Your task to perform on an android device: change alarm snooze length Image 0: 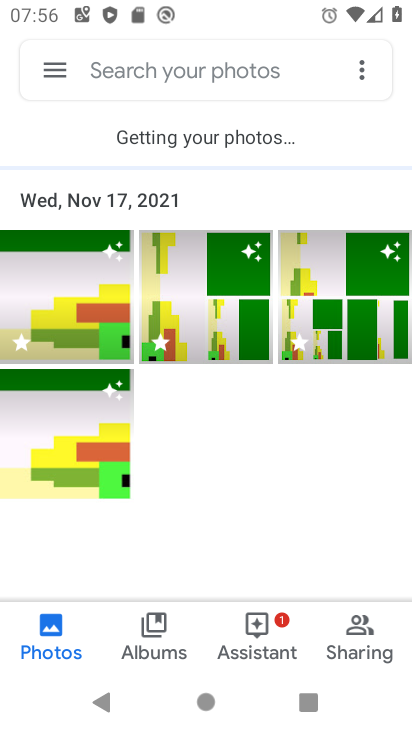
Step 0: press home button
Your task to perform on an android device: change alarm snooze length Image 1: 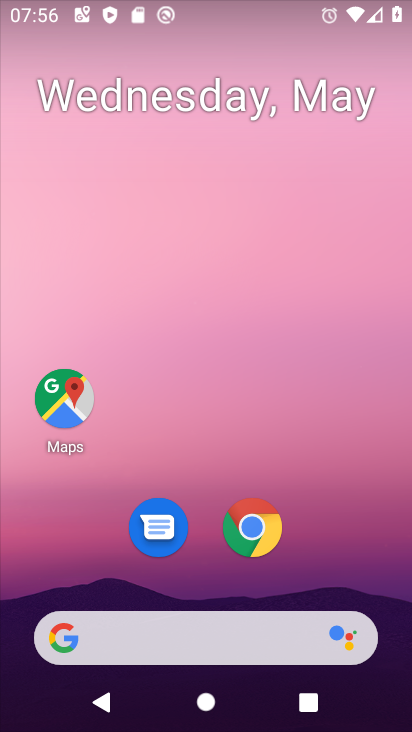
Step 1: drag from (340, 556) to (373, 101)
Your task to perform on an android device: change alarm snooze length Image 2: 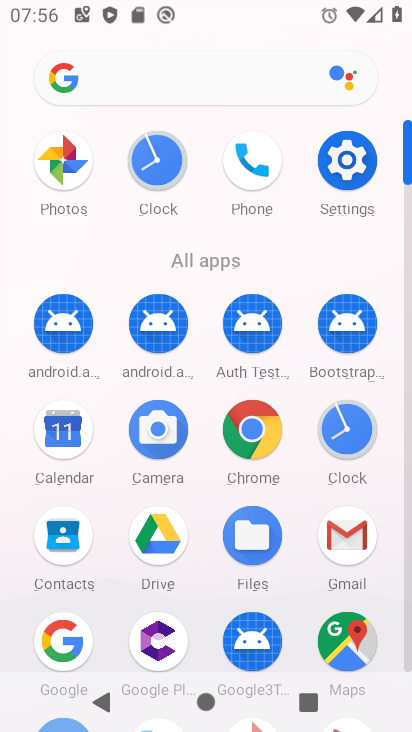
Step 2: click (345, 423)
Your task to perform on an android device: change alarm snooze length Image 3: 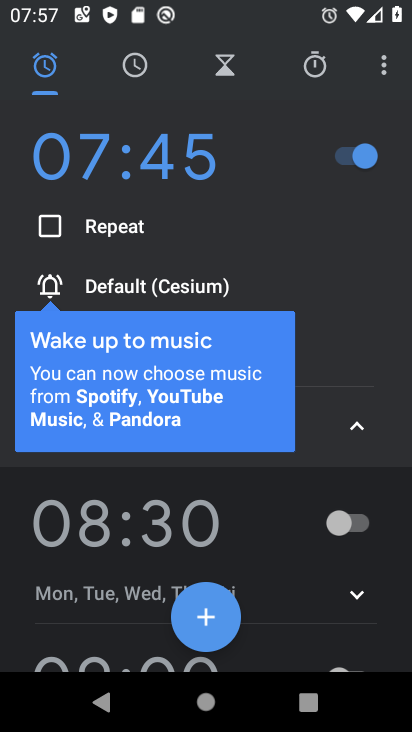
Step 3: click (386, 75)
Your task to perform on an android device: change alarm snooze length Image 4: 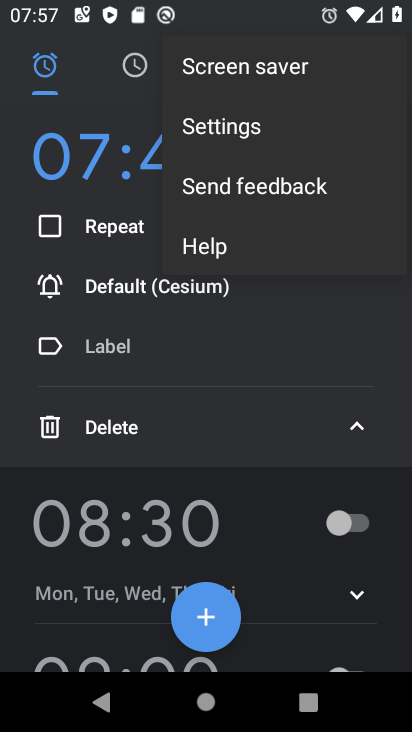
Step 4: click (242, 141)
Your task to perform on an android device: change alarm snooze length Image 5: 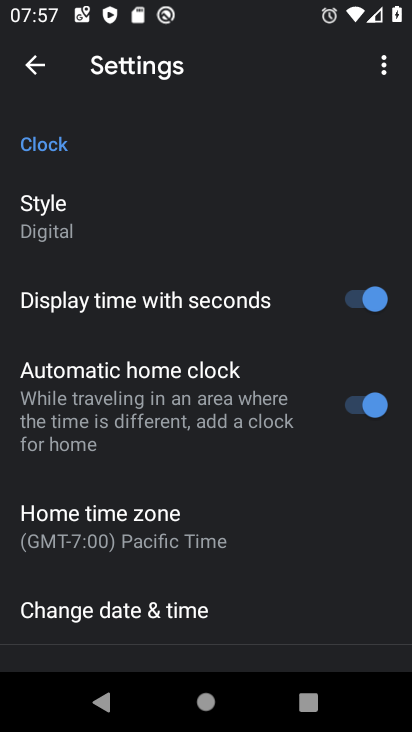
Step 5: drag from (317, 574) to (340, 343)
Your task to perform on an android device: change alarm snooze length Image 6: 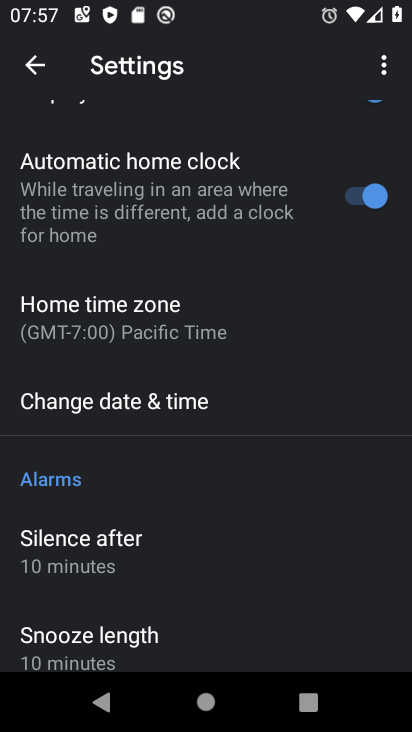
Step 6: drag from (192, 571) to (219, 333)
Your task to perform on an android device: change alarm snooze length Image 7: 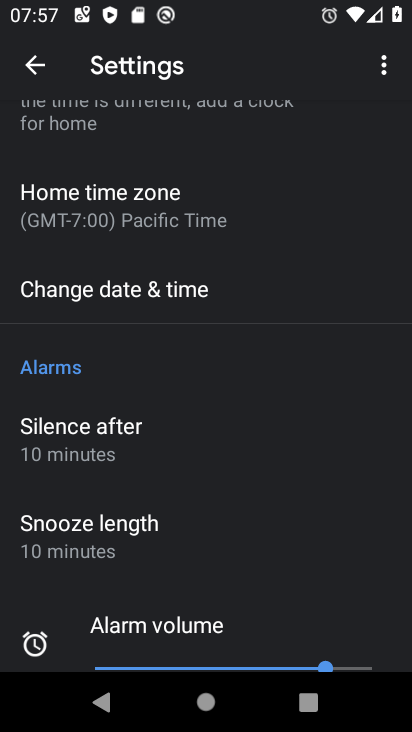
Step 7: click (184, 522)
Your task to perform on an android device: change alarm snooze length Image 8: 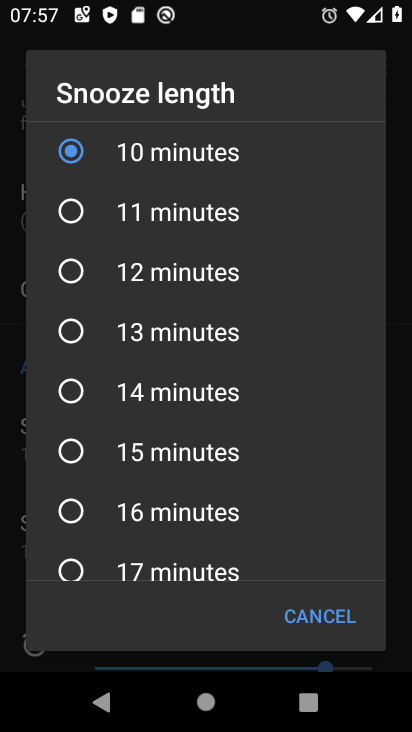
Step 8: click (184, 522)
Your task to perform on an android device: change alarm snooze length Image 9: 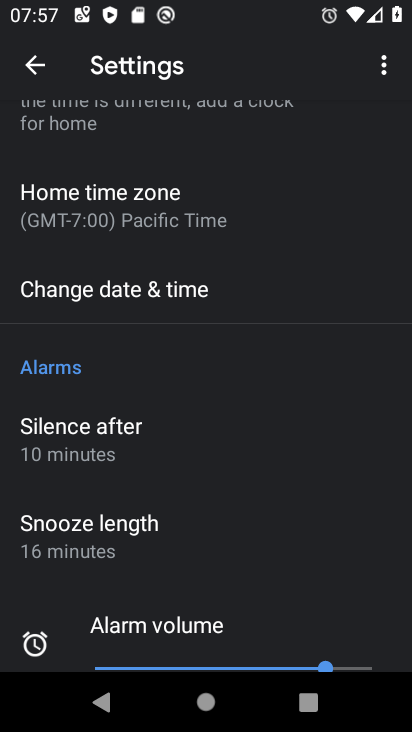
Step 9: task complete